Your task to perform on an android device: Show me the alarms in the clock app Image 0: 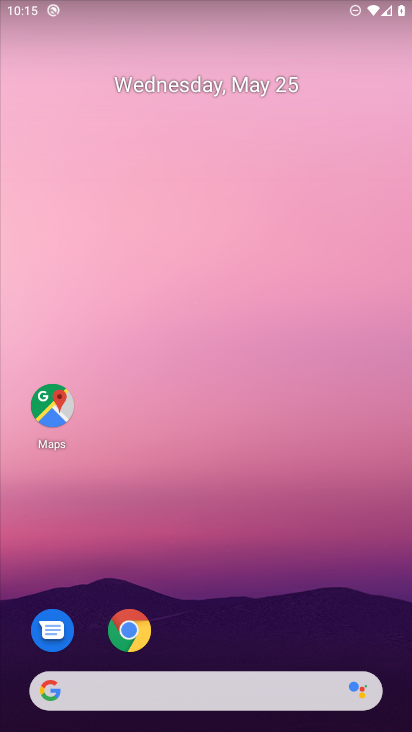
Step 0: drag from (165, 566) to (110, 292)
Your task to perform on an android device: Show me the alarms in the clock app Image 1: 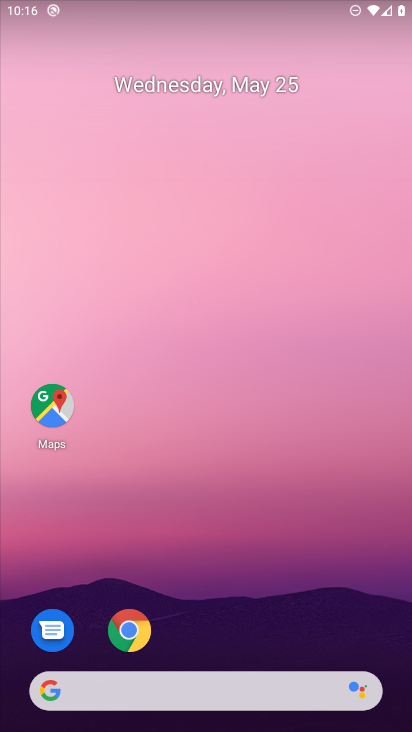
Step 1: drag from (173, 669) to (148, 220)
Your task to perform on an android device: Show me the alarms in the clock app Image 2: 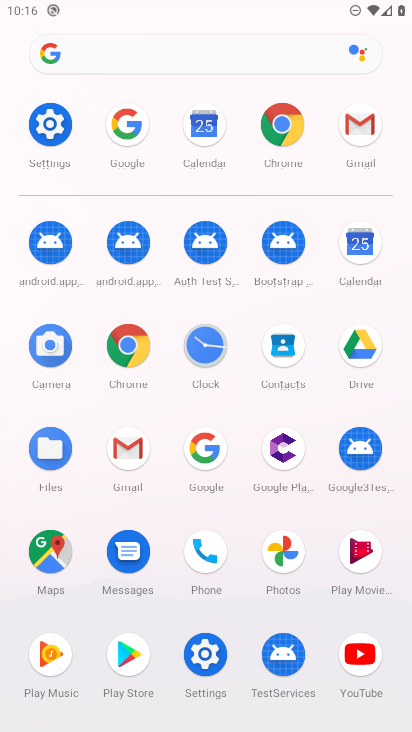
Step 2: click (196, 350)
Your task to perform on an android device: Show me the alarms in the clock app Image 3: 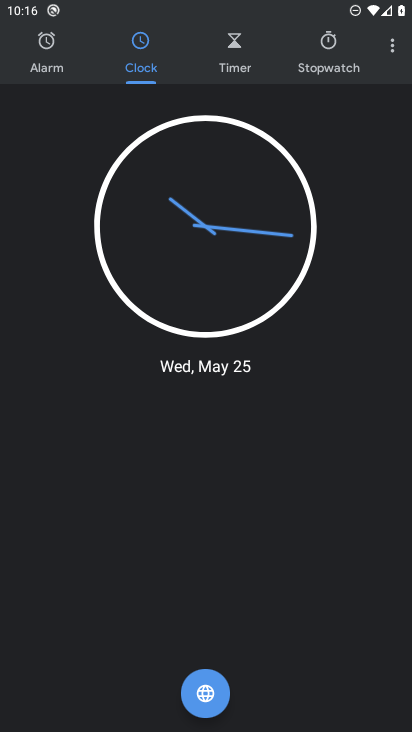
Step 3: click (50, 76)
Your task to perform on an android device: Show me the alarms in the clock app Image 4: 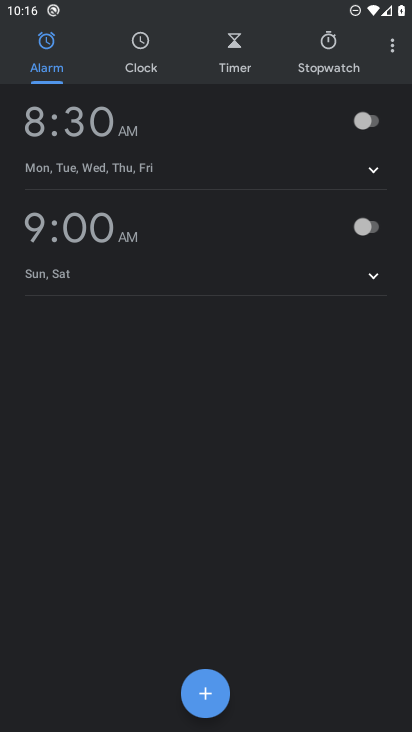
Step 4: task complete